Your task to perform on an android device: Open sound settings Image 0: 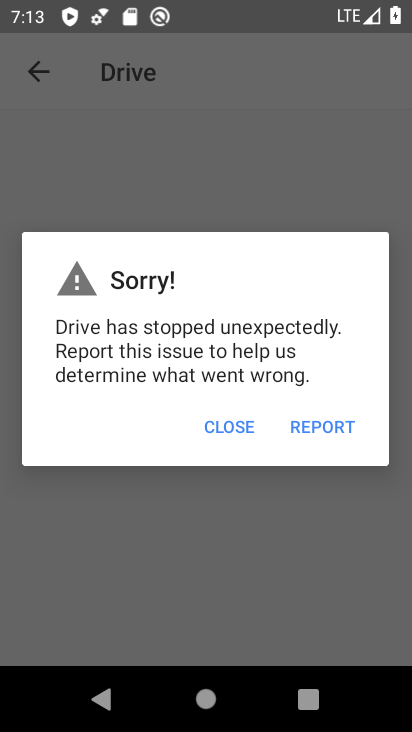
Step 0: press home button
Your task to perform on an android device: Open sound settings Image 1: 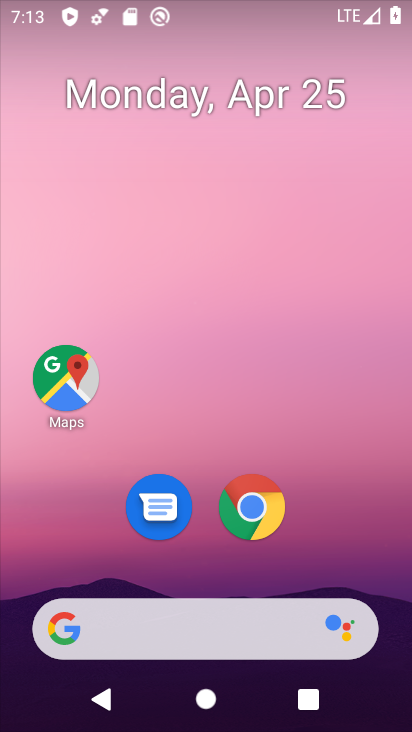
Step 1: drag from (335, 554) to (271, 43)
Your task to perform on an android device: Open sound settings Image 2: 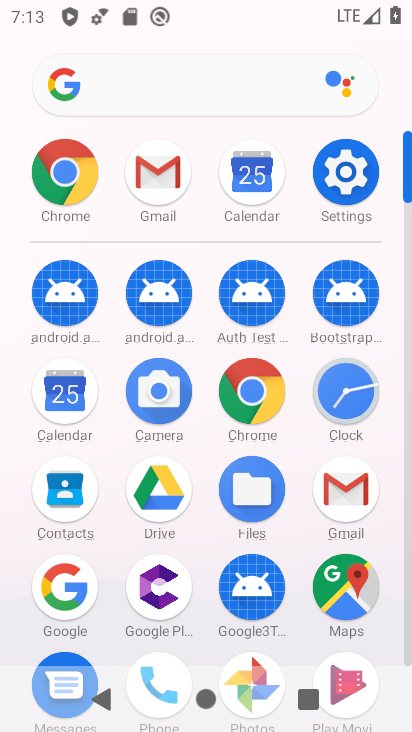
Step 2: click (357, 194)
Your task to perform on an android device: Open sound settings Image 3: 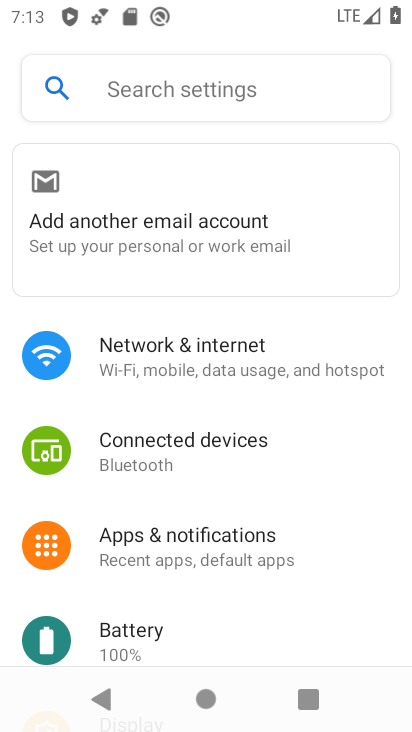
Step 3: drag from (283, 609) to (275, 94)
Your task to perform on an android device: Open sound settings Image 4: 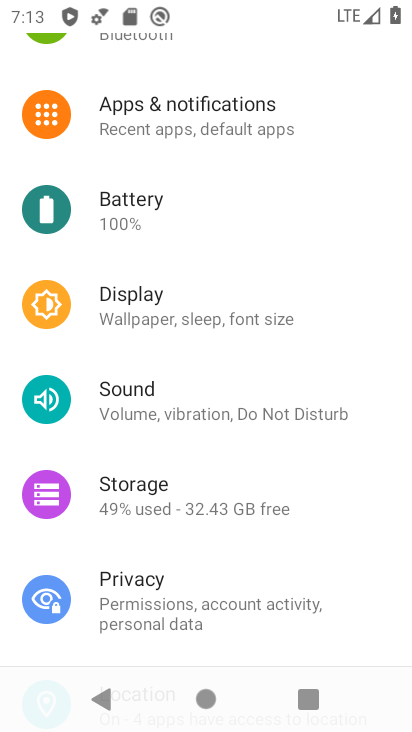
Step 4: click (213, 403)
Your task to perform on an android device: Open sound settings Image 5: 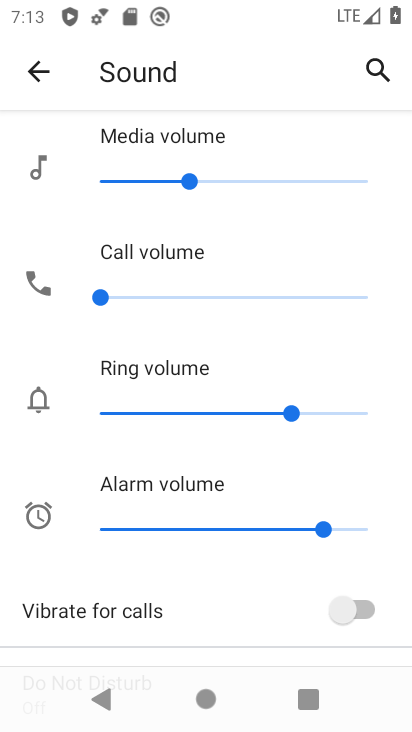
Step 5: task complete